Your task to perform on an android device: move a message to another label in the gmail app Image 0: 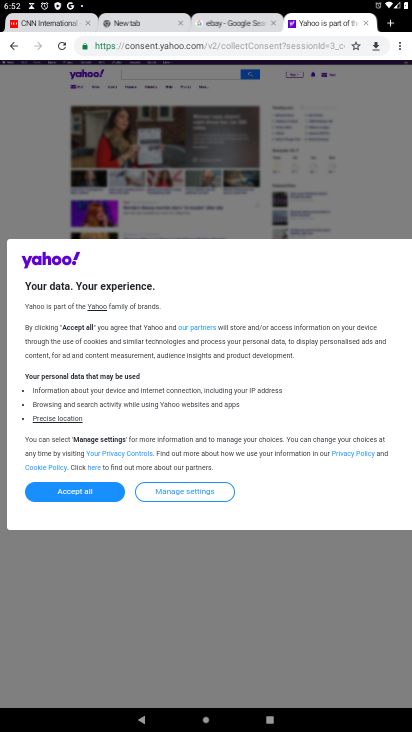
Step 0: press home button
Your task to perform on an android device: move a message to another label in the gmail app Image 1: 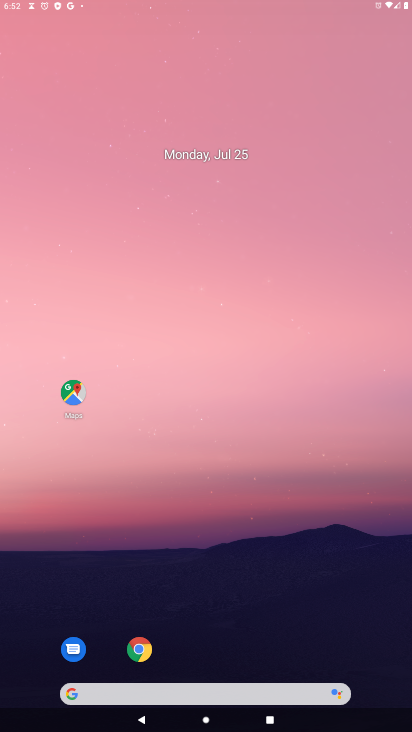
Step 1: drag from (281, 596) to (345, 69)
Your task to perform on an android device: move a message to another label in the gmail app Image 2: 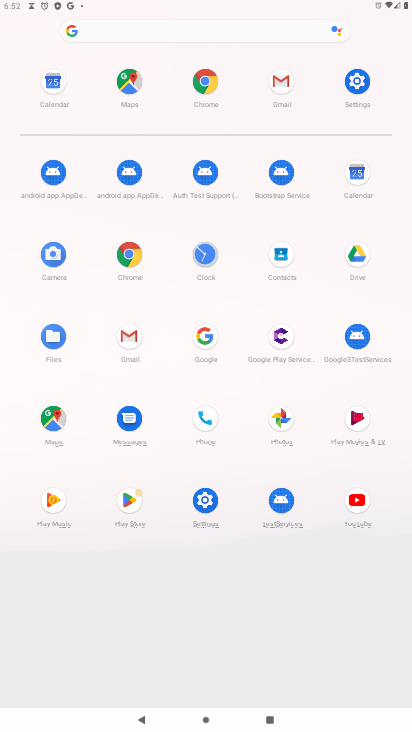
Step 2: click (126, 329)
Your task to perform on an android device: move a message to another label in the gmail app Image 3: 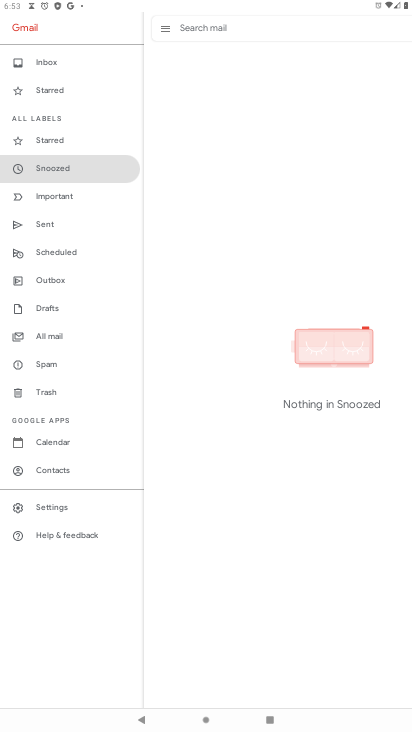
Step 3: click (58, 135)
Your task to perform on an android device: move a message to another label in the gmail app Image 4: 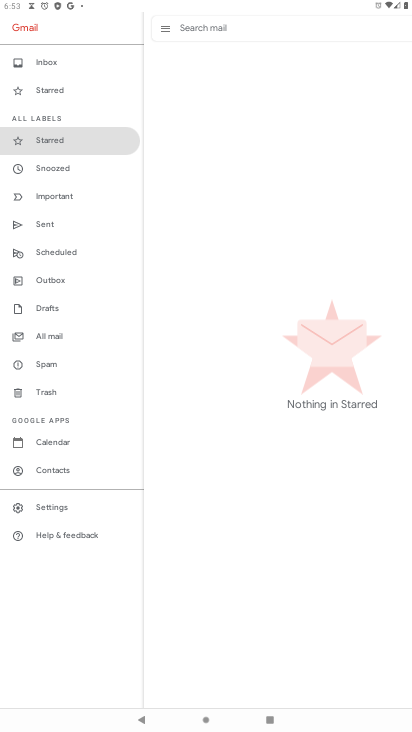
Step 4: click (25, 63)
Your task to perform on an android device: move a message to another label in the gmail app Image 5: 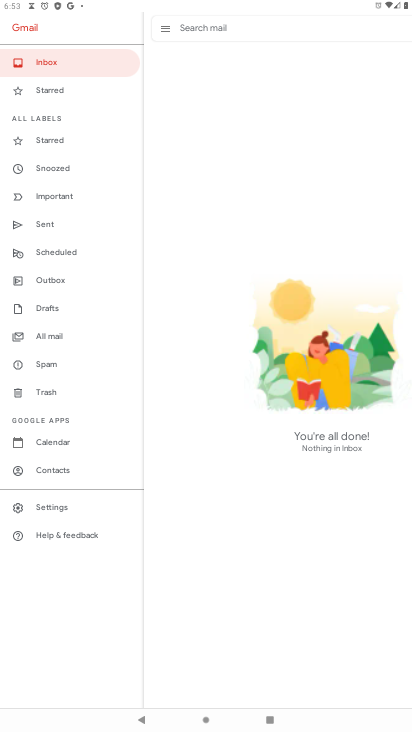
Step 5: task complete